Your task to perform on an android device: Search for vegetarian restaurants on Maps Image 0: 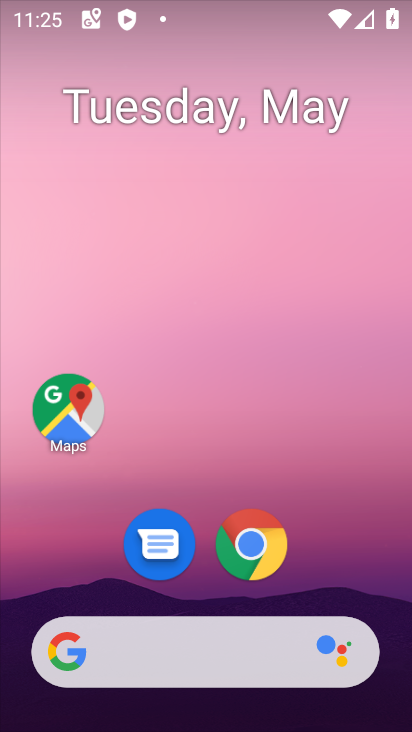
Step 0: drag from (343, 446) to (242, 115)
Your task to perform on an android device: Search for vegetarian restaurants on Maps Image 1: 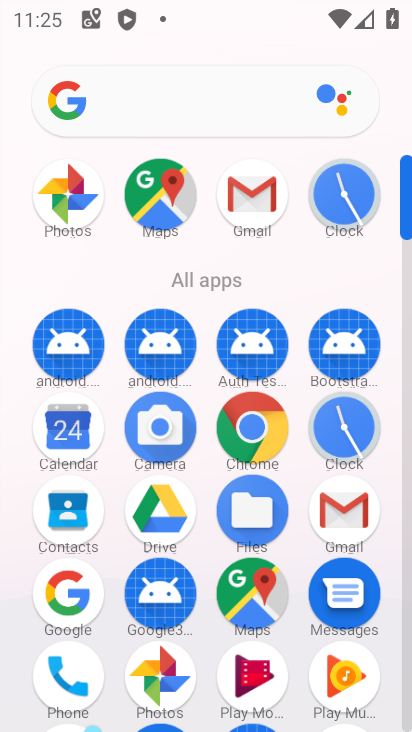
Step 1: click (151, 208)
Your task to perform on an android device: Search for vegetarian restaurants on Maps Image 2: 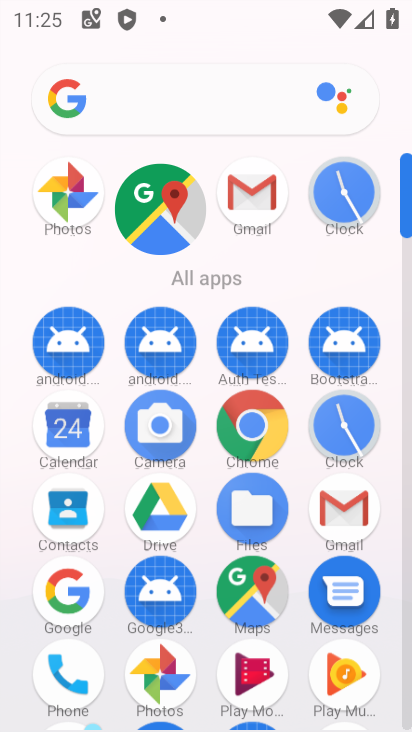
Step 2: click (152, 207)
Your task to perform on an android device: Search for vegetarian restaurants on Maps Image 3: 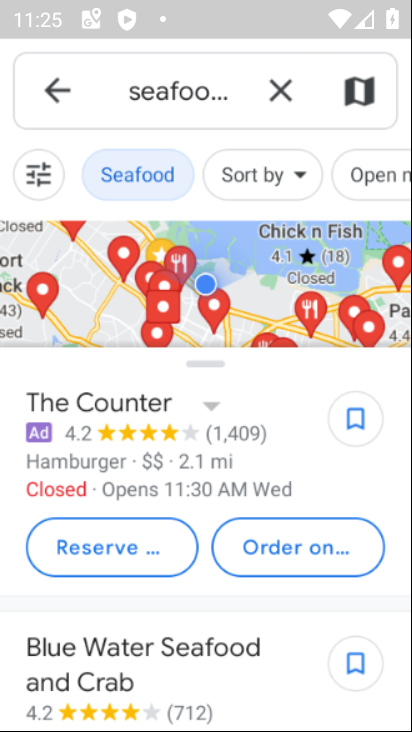
Step 3: click (155, 205)
Your task to perform on an android device: Search for vegetarian restaurants on Maps Image 4: 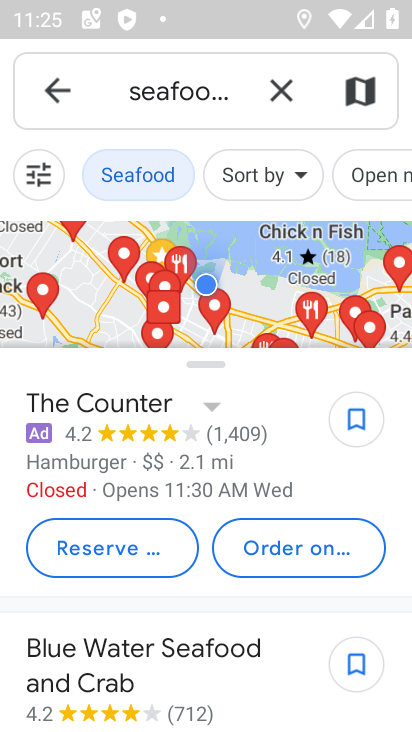
Step 4: click (113, 87)
Your task to perform on an android device: Search for vegetarian restaurants on Maps Image 5: 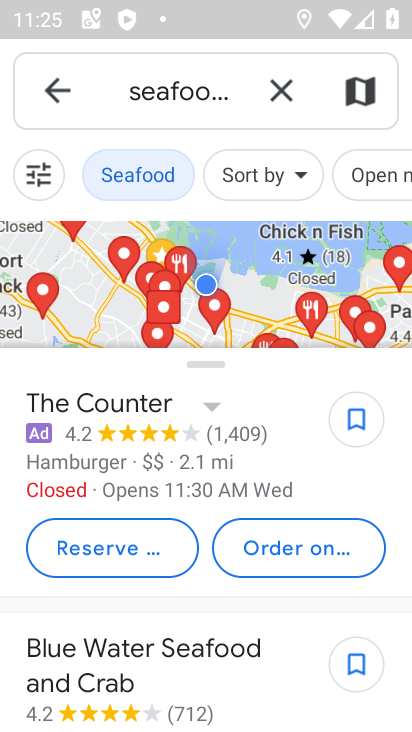
Step 5: click (126, 92)
Your task to perform on an android device: Search for vegetarian restaurants on Maps Image 6: 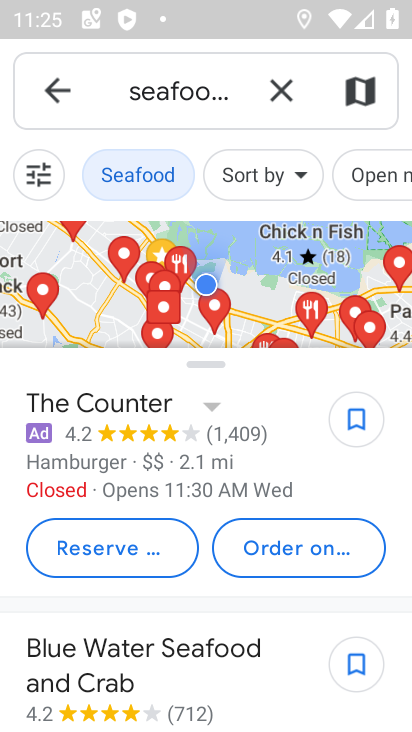
Step 6: click (130, 93)
Your task to perform on an android device: Search for vegetarian restaurants on Maps Image 7: 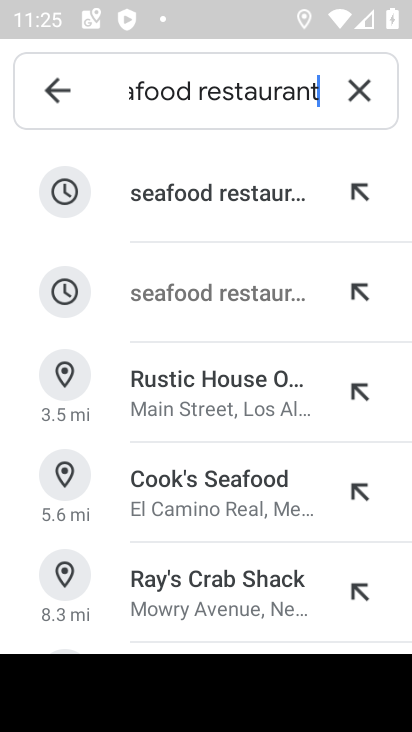
Step 7: click (365, 89)
Your task to perform on an android device: Search for vegetarian restaurants on Maps Image 8: 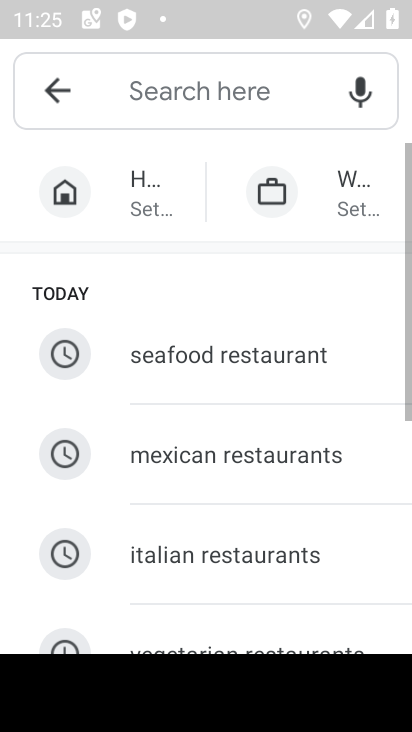
Step 8: click (360, 91)
Your task to perform on an android device: Search for vegetarian restaurants on Maps Image 9: 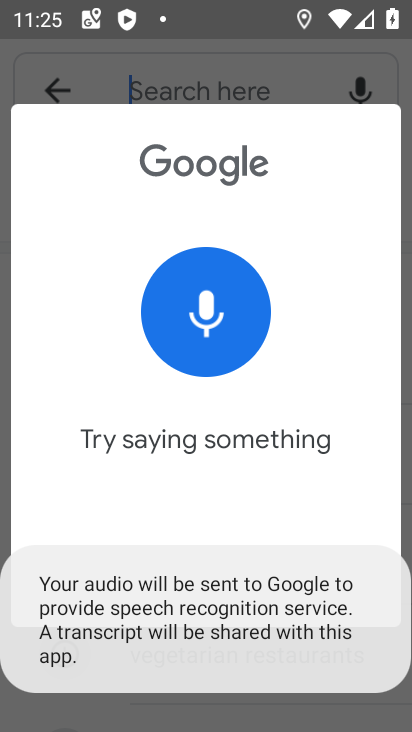
Step 9: click (123, 90)
Your task to perform on an android device: Search for vegetarian restaurants on Maps Image 10: 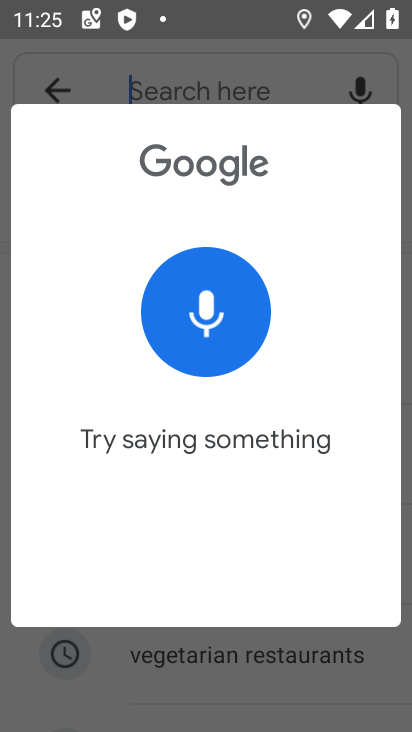
Step 10: click (123, 90)
Your task to perform on an android device: Search for vegetarian restaurants on Maps Image 11: 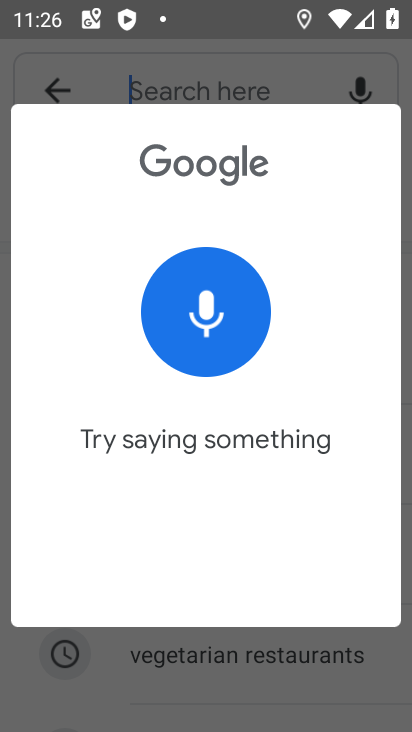
Step 11: click (132, 90)
Your task to perform on an android device: Search for vegetarian restaurants on Maps Image 12: 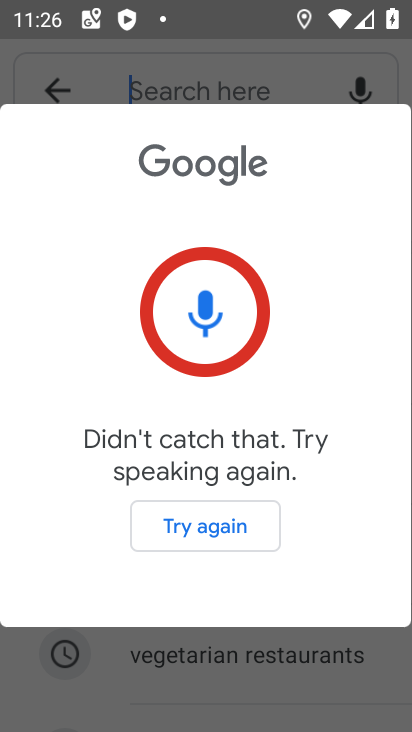
Step 12: type "vegetarian restaurants"
Your task to perform on an android device: Search for vegetarian restaurants on Maps Image 13: 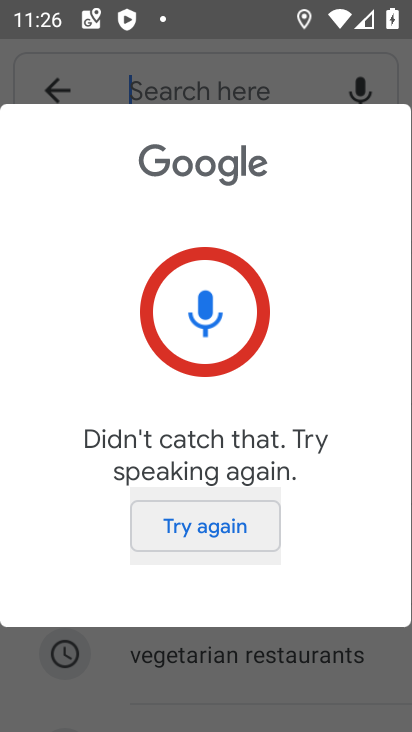
Step 13: click (64, 80)
Your task to perform on an android device: Search for vegetarian restaurants on Maps Image 14: 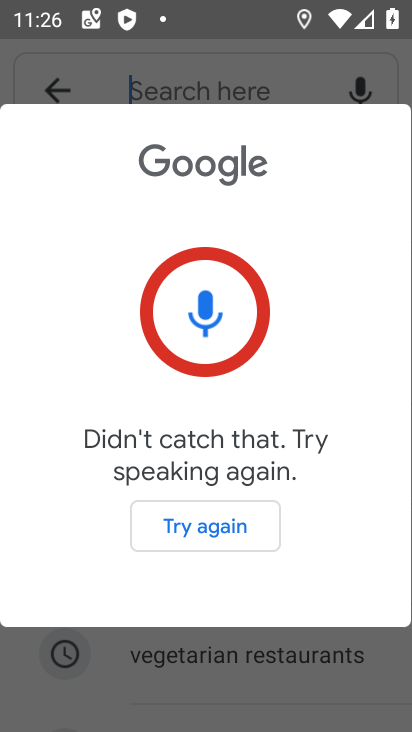
Step 14: click (68, 104)
Your task to perform on an android device: Search for vegetarian restaurants on Maps Image 15: 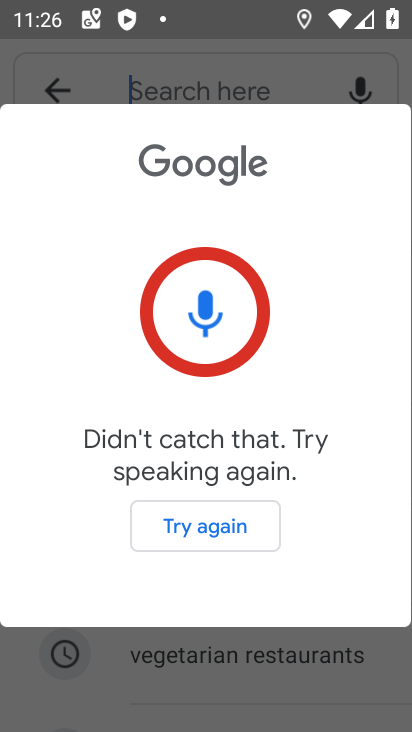
Step 15: click (68, 102)
Your task to perform on an android device: Search for vegetarian restaurants on Maps Image 16: 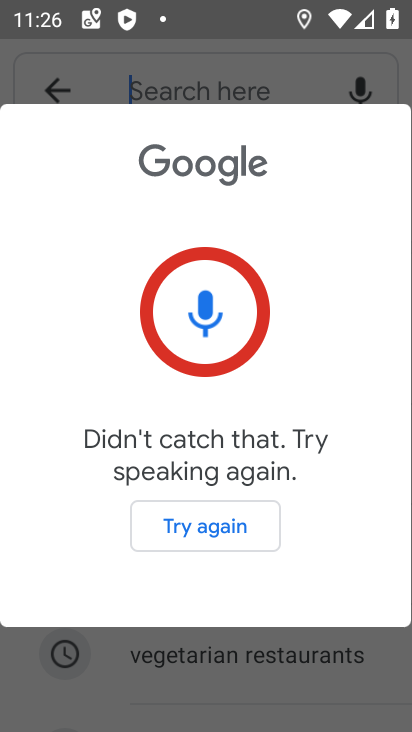
Step 16: click (67, 87)
Your task to perform on an android device: Search for vegetarian restaurants on Maps Image 17: 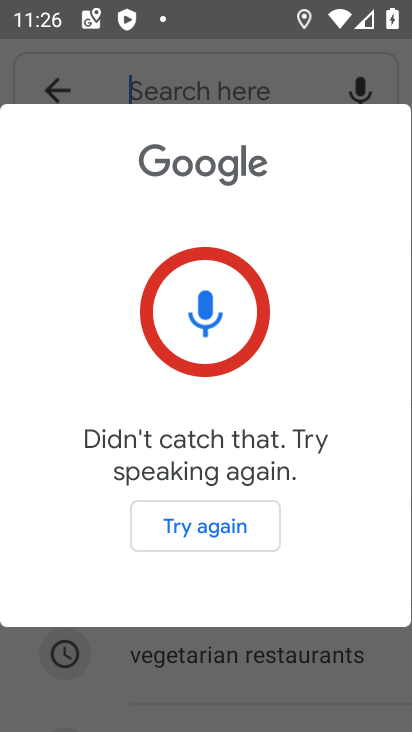
Step 17: click (59, 91)
Your task to perform on an android device: Search for vegetarian restaurants on Maps Image 18: 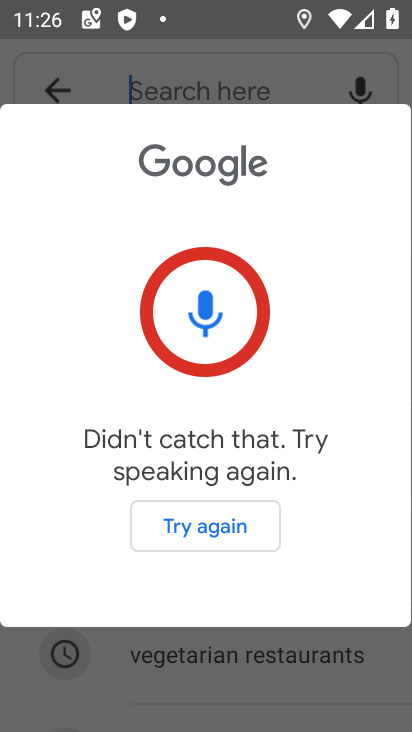
Step 18: click (54, 89)
Your task to perform on an android device: Search for vegetarian restaurants on Maps Image 19: 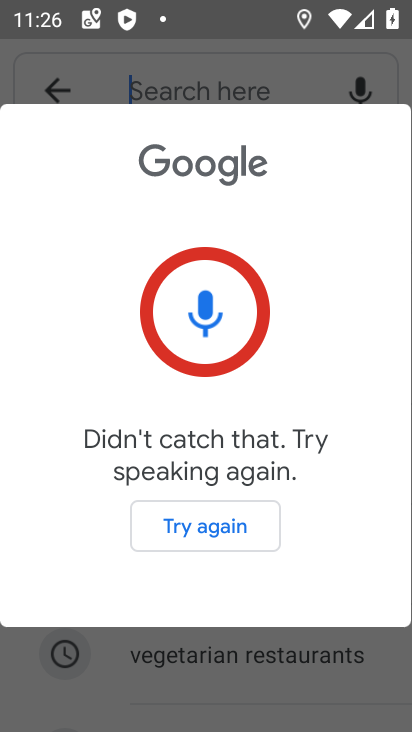
Step 19: task complete